Your task to perform on an android device: Open battery settings Image 0: 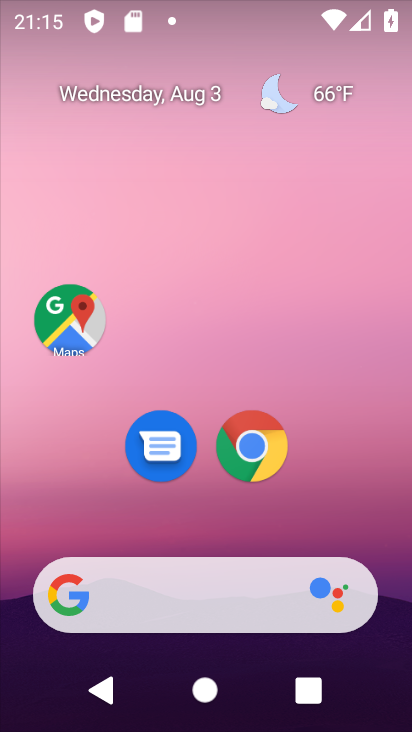
Step 0: drag from (370, 691) to (323, 61)
Your task to perform on an android device: Open battery settings Image 1: 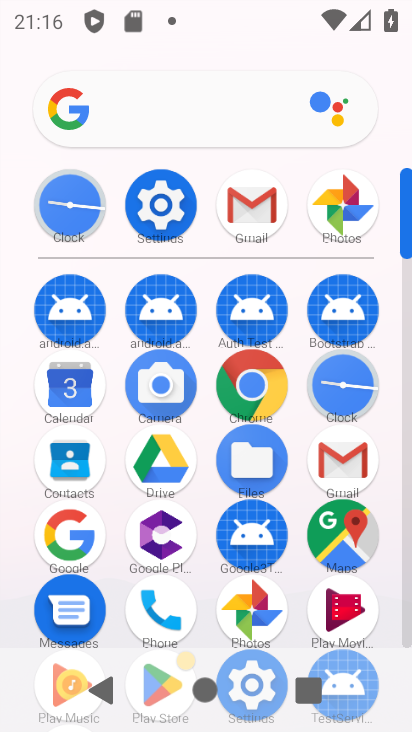
Step 1: click (154, 188)
Your task to perform on an android device: Open battery settings Image 2: 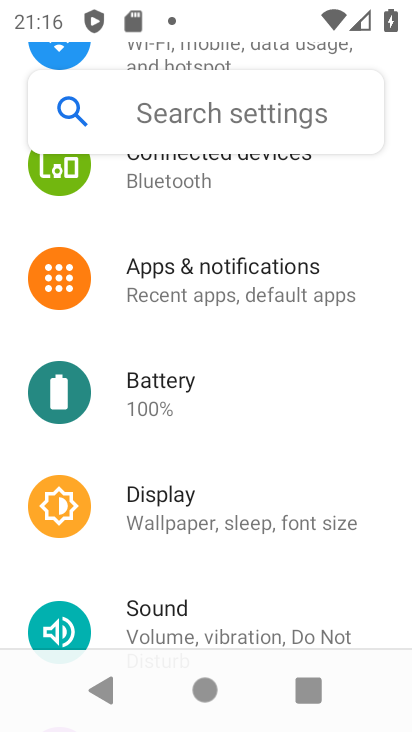
Step 2: click (151, 373)
Your task to perform on an android device: Open battery settings Image 3: 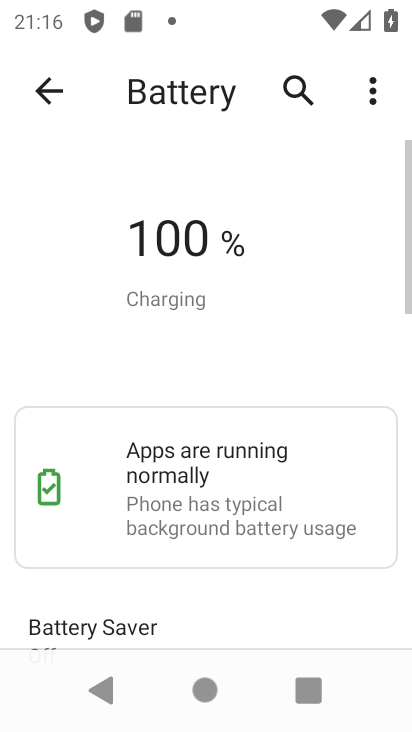
Step 3: task complete